Your task to perform on an android device: Search for vegetarian restaurants on Maps Image 0: 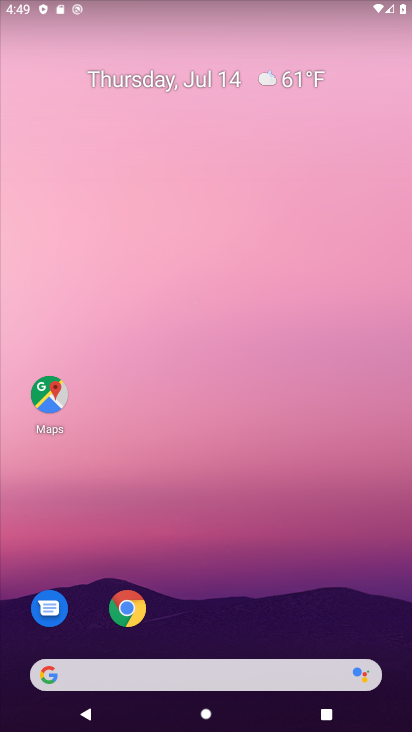
Step 0: drag from (276, 478) to (267, 22)
Your task to perform on an android device: Search for vegetarian restaurants on Maps Image 1: 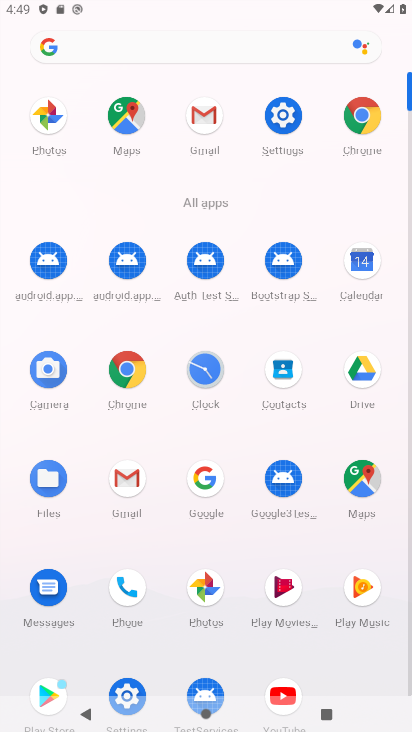
Step 1: click (119, 108)
Your task to perform on an android device: Search for vegetarian restaurants on Maps Image 2: 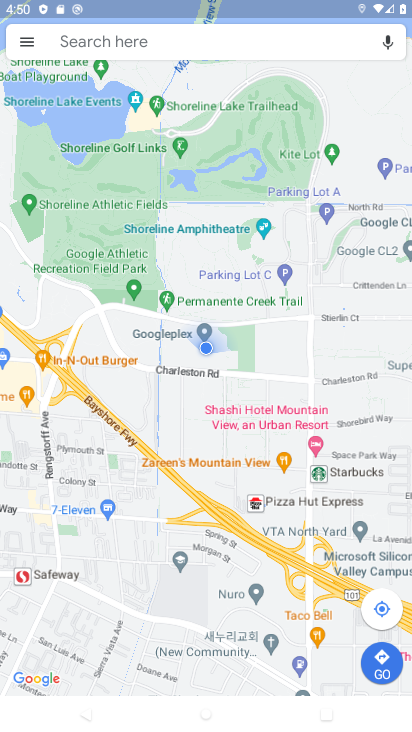
Step 2: click (169, 40)
Your task to perform on an android device: Search for vegetarian restaurants on Maps Image 3: 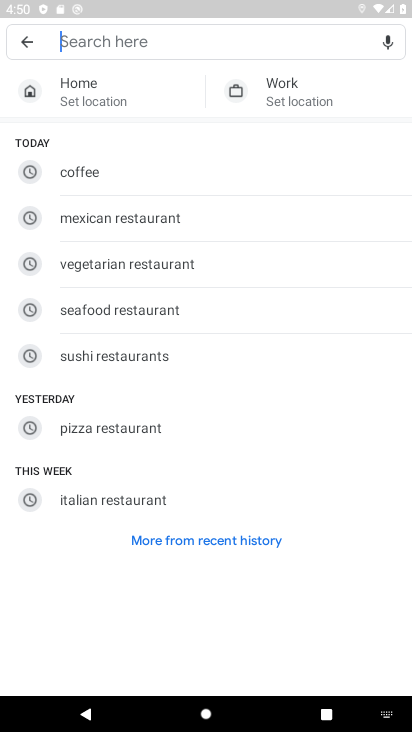
Step 3: type "vegetarian restaurants"
Your task to perform on an android device: Search for vegetarian restaurants on Maps Image 4: 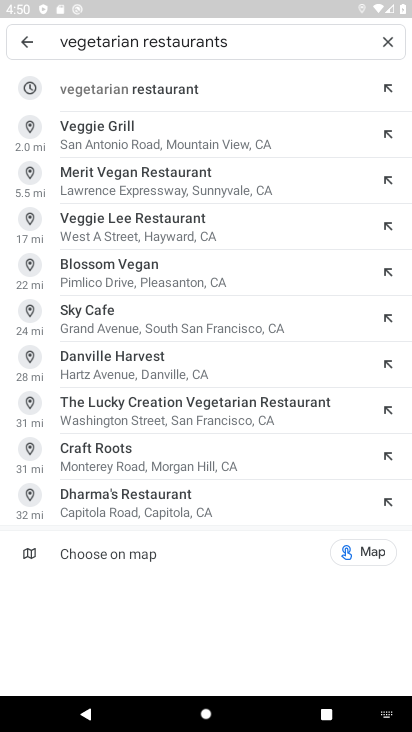
Step 4: press enter
Your task to perform on an android device: Search for vegetarian restaurants on Maps Image 5: 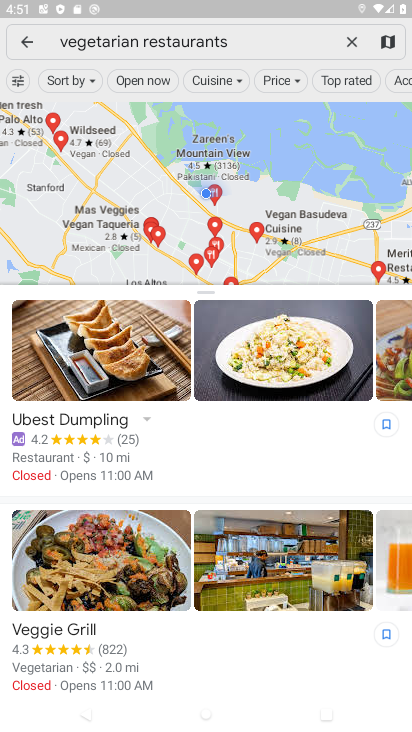
Step 5: task complete